Your task to perform on an android device: install app "PUBG MOBILE" Image 0: 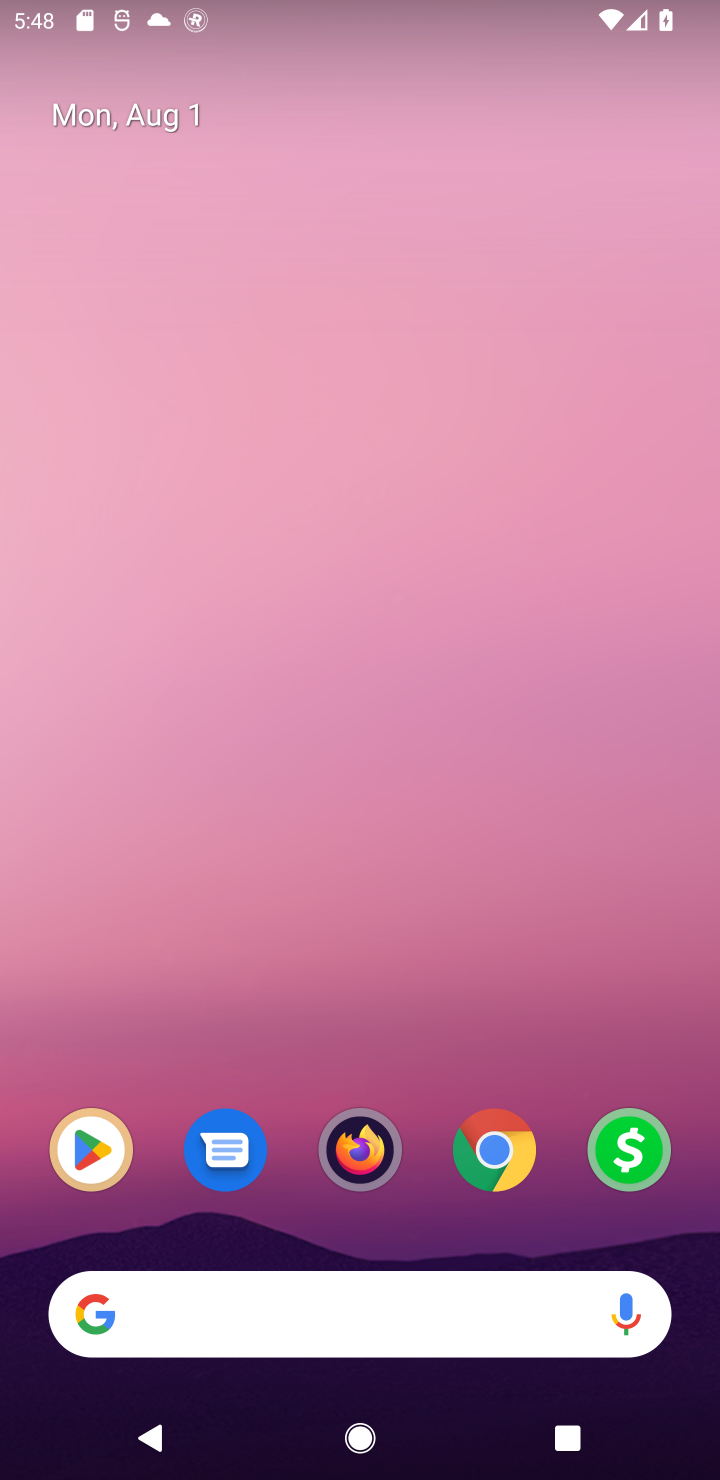
Step 0: drag from (415, 1234) to (309, 560)
Your task to perform on an android device: install app "PUBG MOBILE" Image 1: 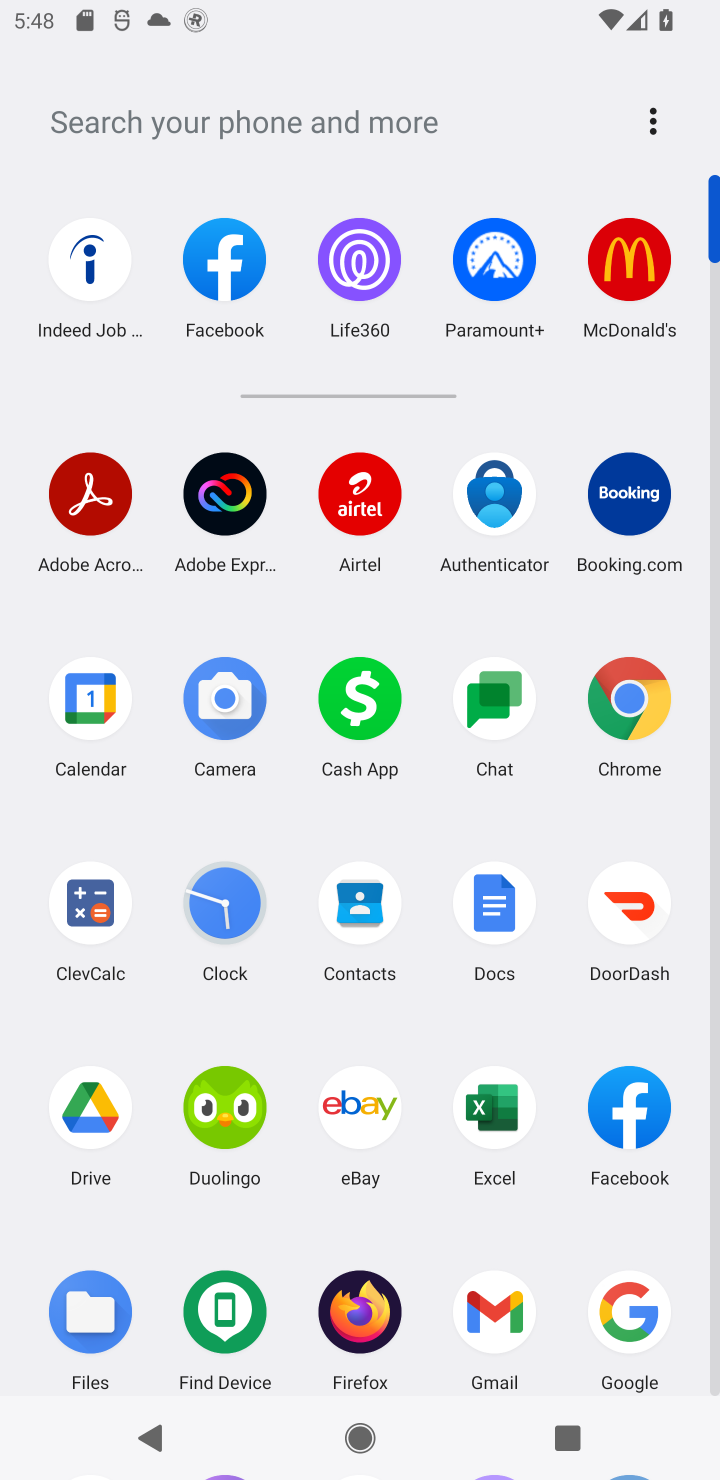
Step 1: click (241, 103)
Your task to perform on an android device: install app "PUBG MOBILE" Image 2: 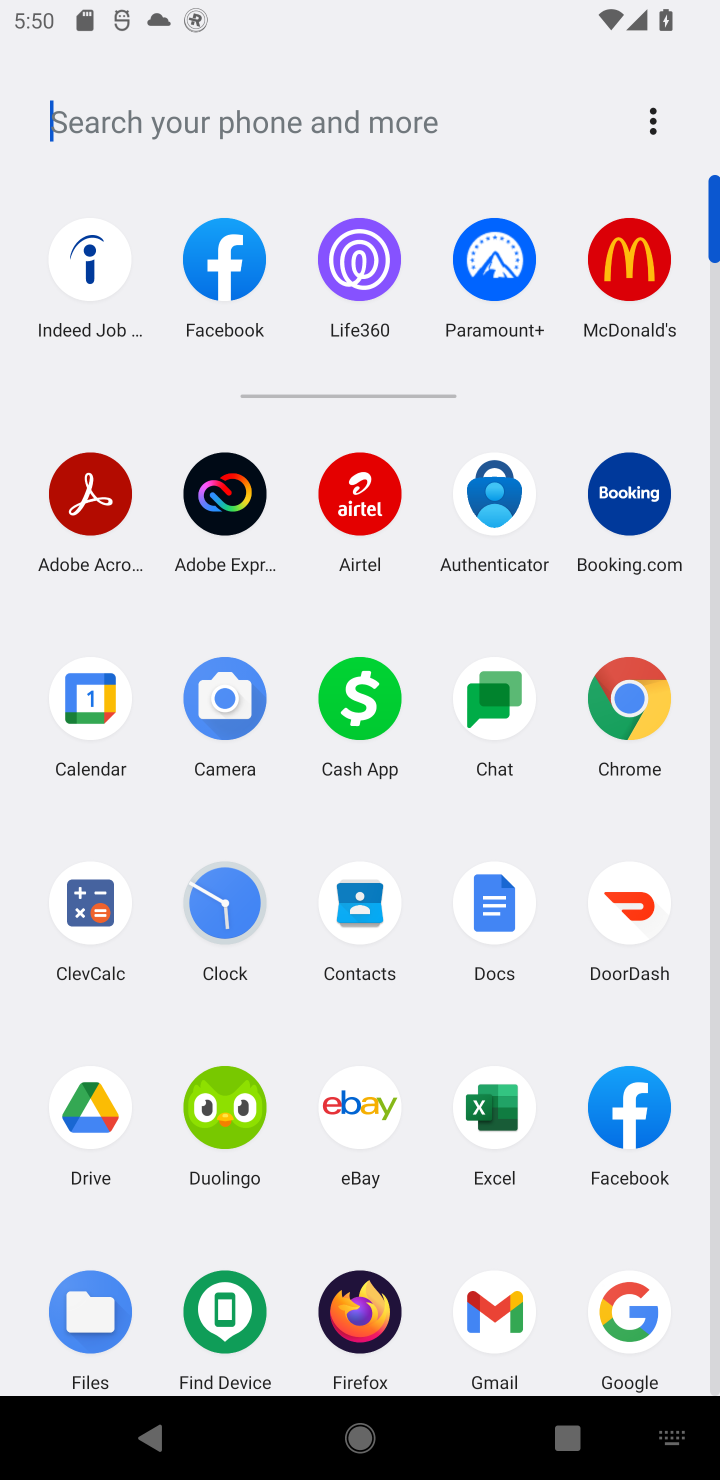
Step 2: task complete